Your task to perform on an android device: create a new album in the google photos Image 0: 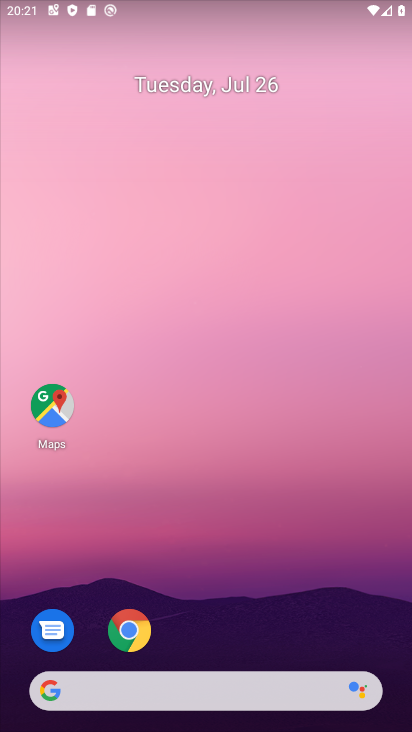
Step 0: press home button
Your task to perform on an android device: create a new album in the google photos Image 1: 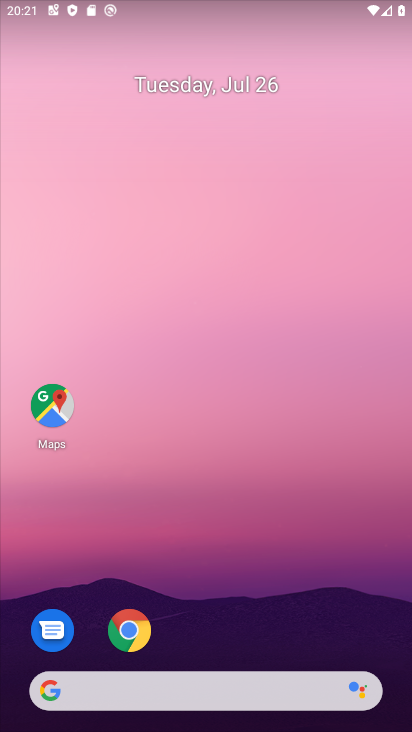
Step 1: drag from (349, 602) to (320, 102)
Your task to perform on an android device: create a new album in the google photos Image 2: 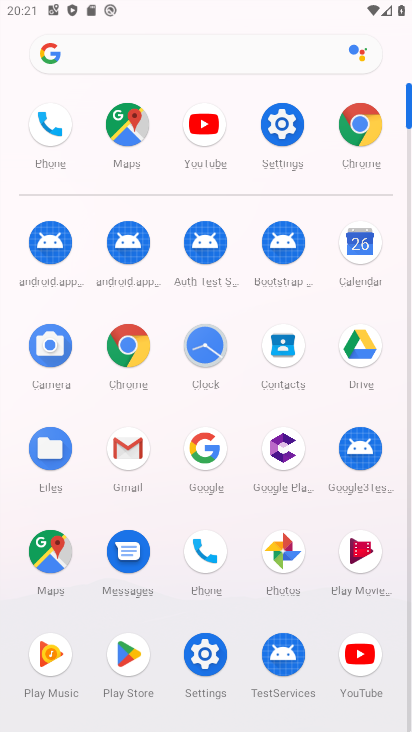
Step 2: click (289, 555)
Your task to perform on an android device: create a new album in the google photos Image 3: 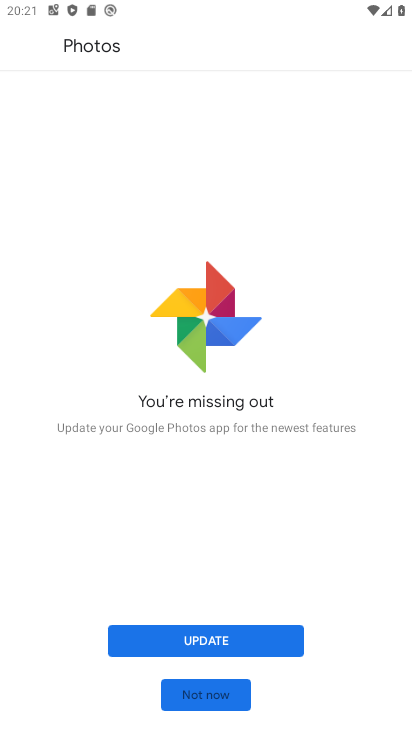
Step 3: click (235, 640)
Your task to perform on an android device: create a new album in the google photos Image 4: 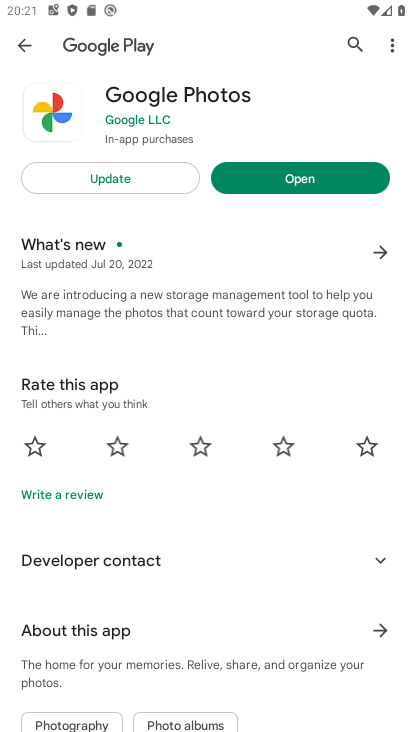
Step 4: click (143, 168)
Your task to perform on an android device: create a new album in the google photos Image 5: 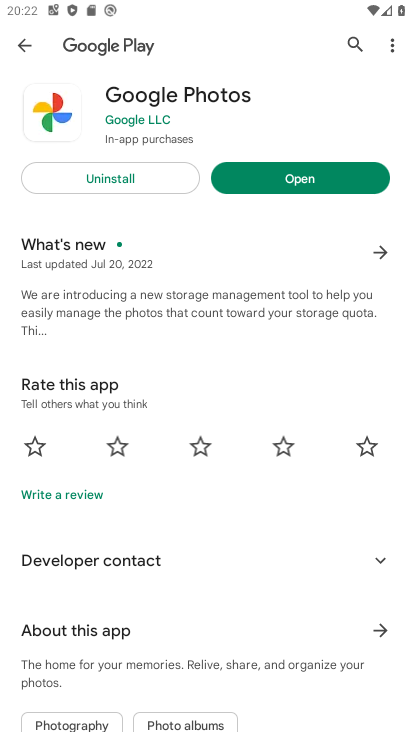
Step 5: click (285, 177)
Your task to perform on an android device: create a new album in the google photos Image 6: 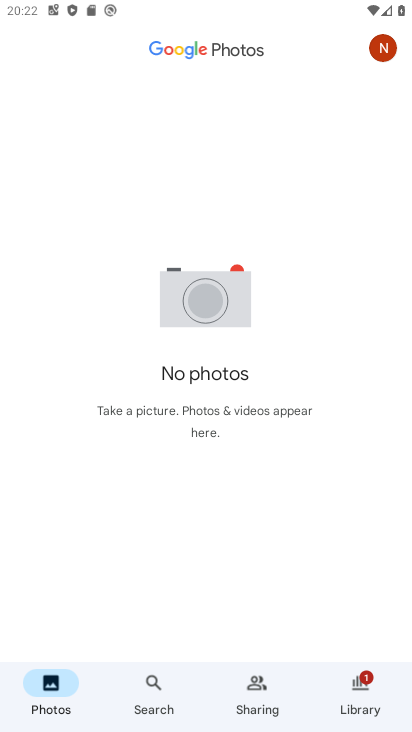
Step 6: click (359, 686)
Your task to perform on an android device: create a new album in the google photos Image 7: 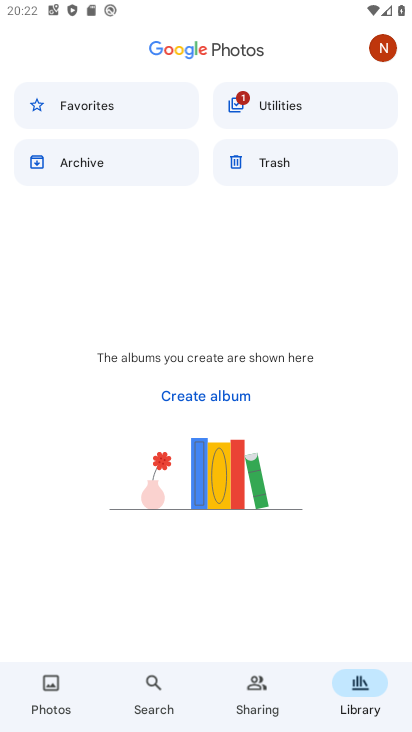
Step 7: click (207, 397)
Your task to perform on an android device: create a new album in the google photos Image 8: 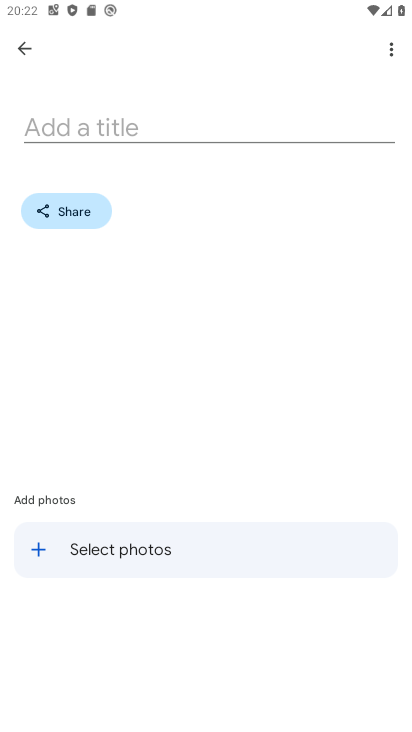
Step 8: click (151, 126)
Your task to perform on an android device: create a new album in the google photos Image 9: 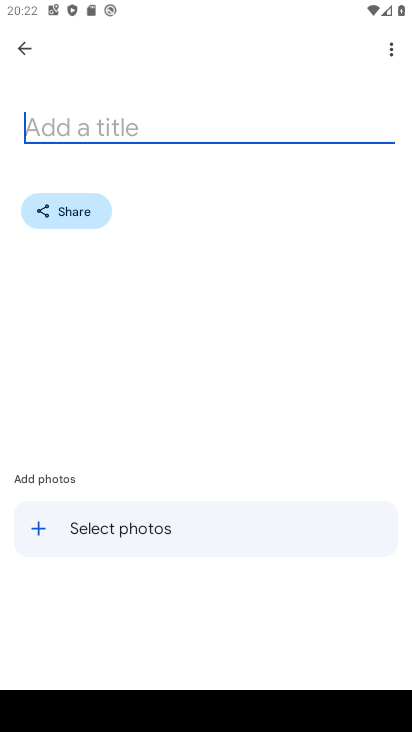
Step 9: type "fav"
Your task to perform on an android device: create a new album in the google photos Image 10: 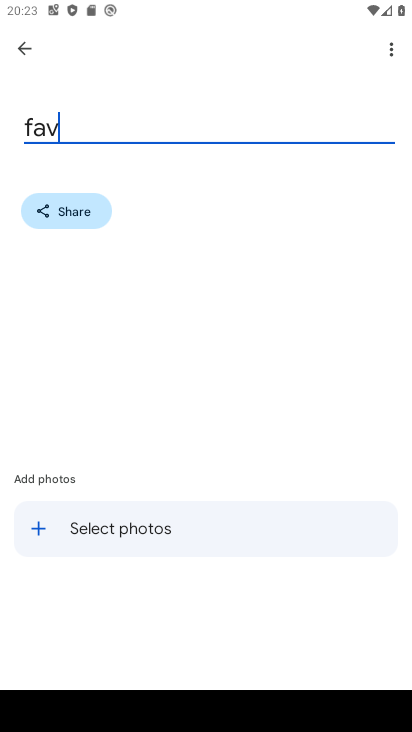
Step 10: click (175, 528)
Your task to perform on an android device: create a new album in the google photos Image 11: 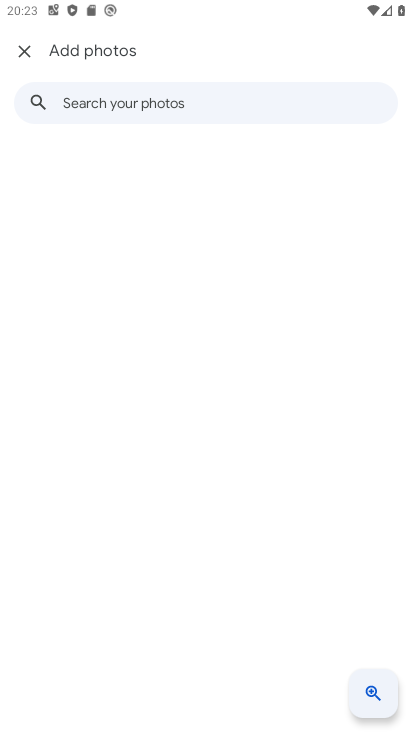
Step 11: task complete